Your task to perform on an android device: toggle wifi Image 0: 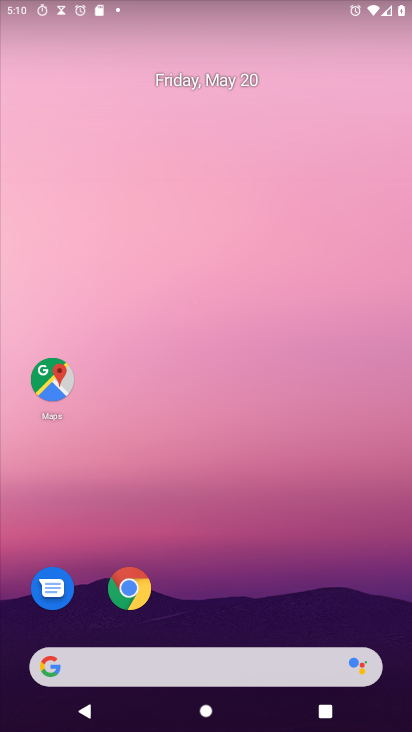
Step 0: drag from (140, 4) to (136, 397)
Your task to perform on an android device: toggle wifi Image 1: 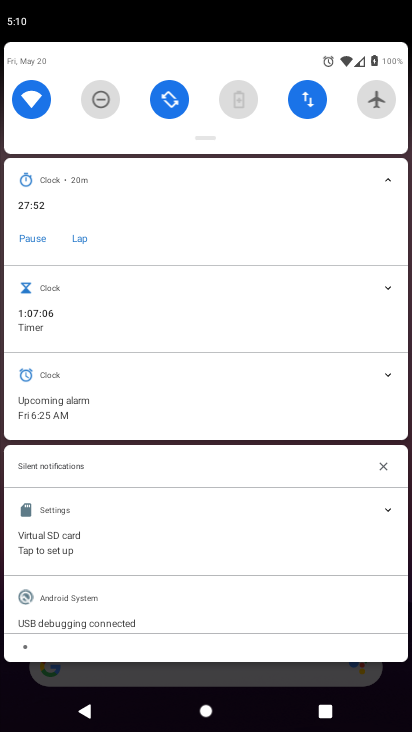
Step 1: drag from (76, 117) to (90, 500)
Your task to perform on an android device: toggle wifi Image 2: 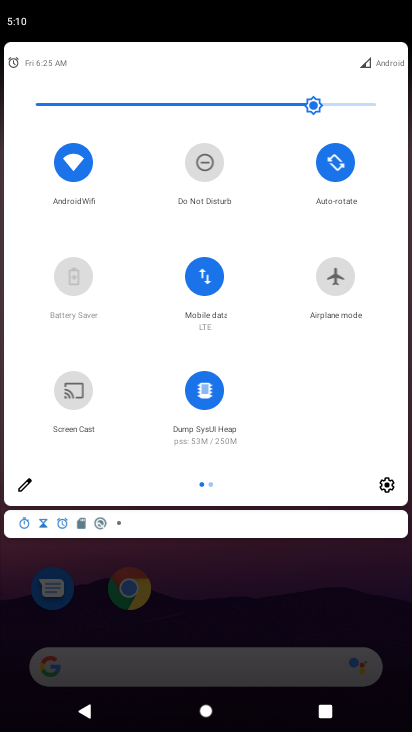
Step 2: click (66, 176)
Your task to perform on an android device: toggle wifi Image 3: 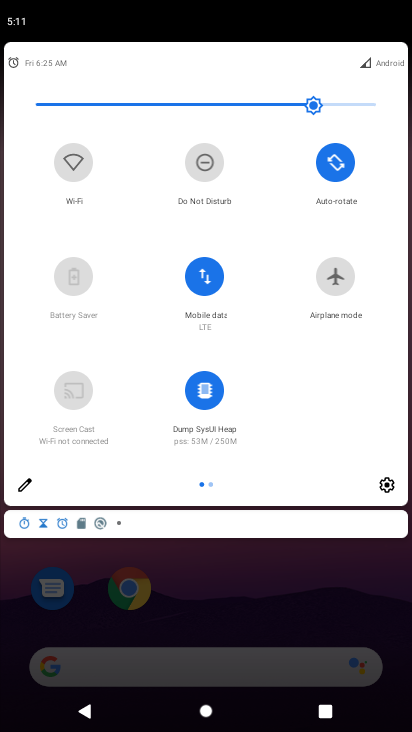
Step 3: click (323, 574)
Your task to perform on an android device: toggle wifi Image 4: 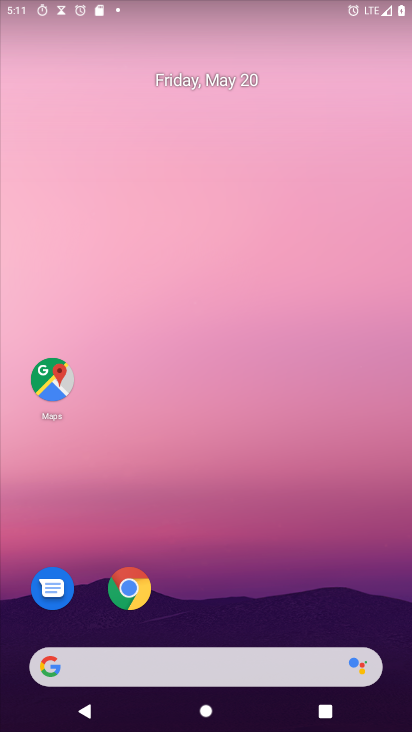
Step 4: task complete